Your task to perform on an android device: Go to battery settings Image 0: 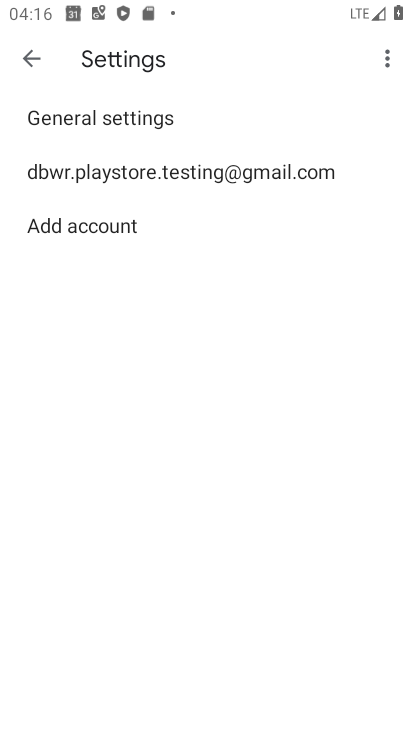
Step 0: press home button
Your task to perform on an android device: Go to battery settings Image 1: 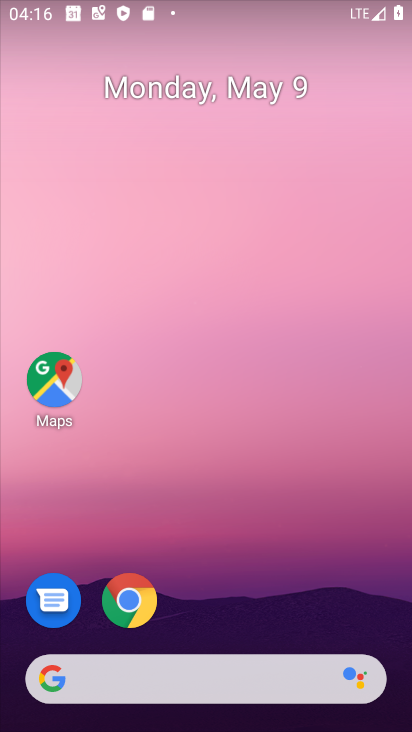
Step 1: drag from (290, 680) to (251, 110)
Your task to perform on an android device: Go to battery settings Image 2: 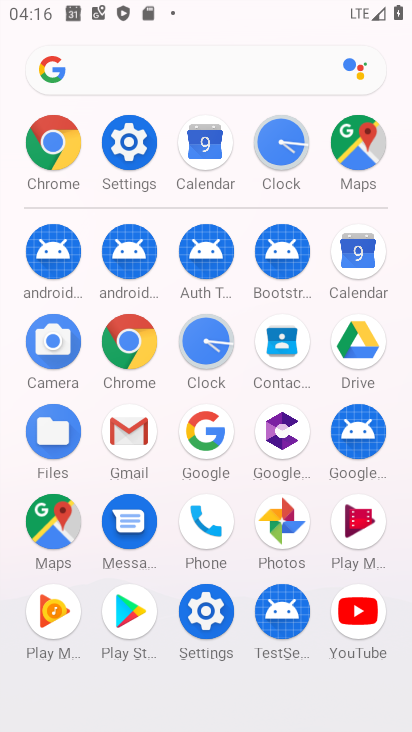
Step 2: click (208, 618)
Your task to perform on an android device: Go to battery settings Image 3: 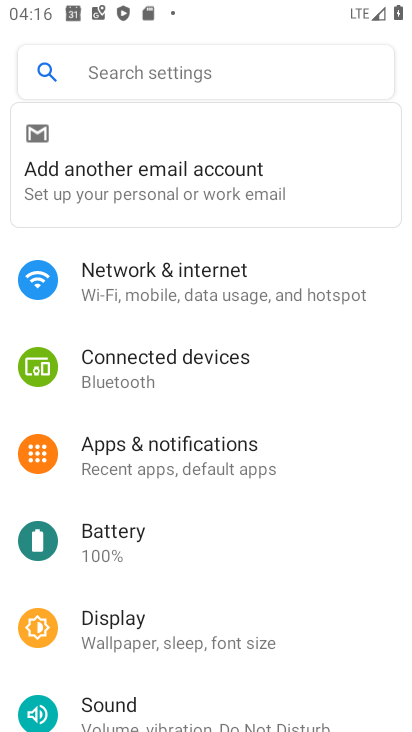
Step 3: click (179, 544)
Your task to perform on an android device: Go to battery settings Image 4: 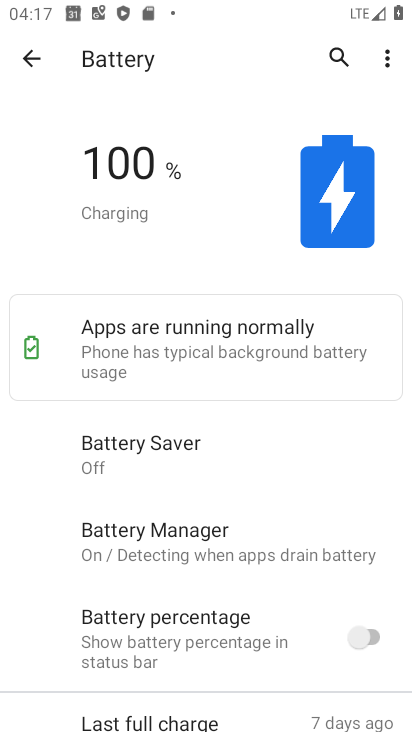
Step 4: task complete